Your task to perform on an android device: Go to battery settings Image 0: 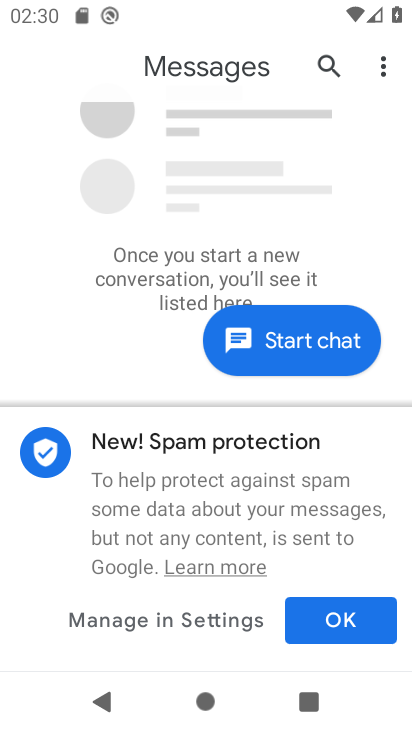
Step 0: press home button
Your task to perform on an android device: Go to battery settings Image 1: 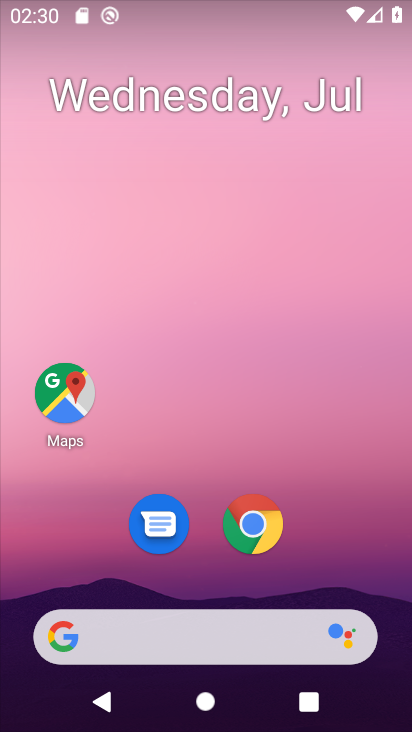
Step 1: drag from (298, 557) to (306, 42)
Your task to perform on an android device: Go to battery settings Image 2: 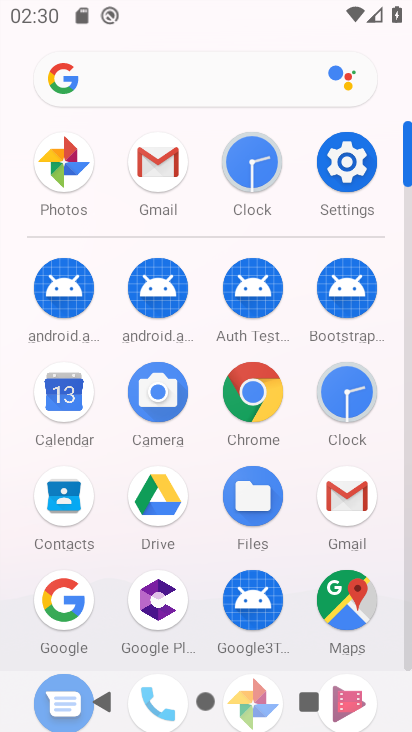
Step 2: click (360, 169)
Your task to perform on an android device: Go to battery settings Image 3: 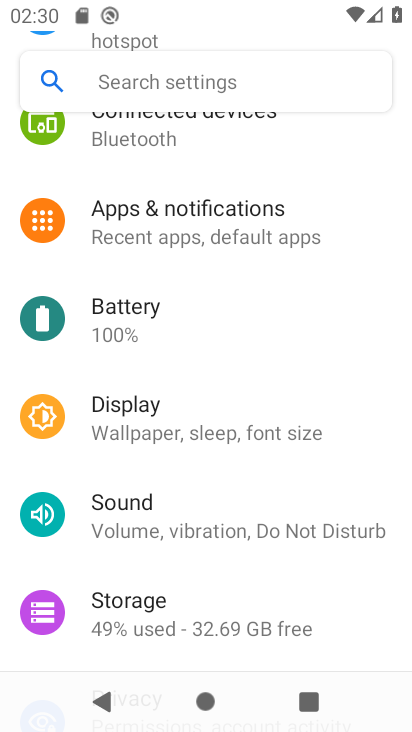
Step 3: click (136, 308)
Your task to perform on an android device: Go to battery settings Image 4: 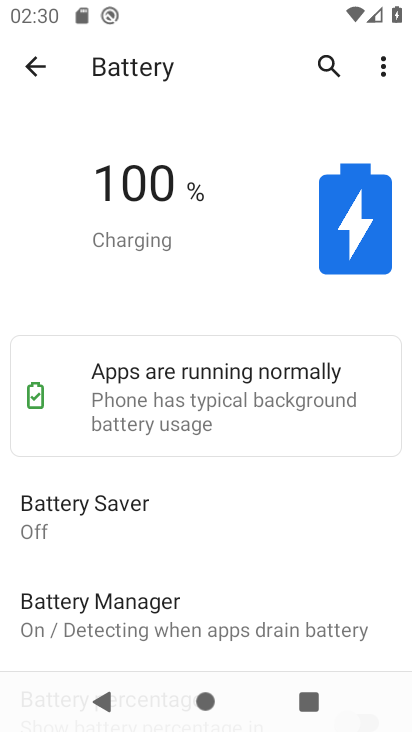
Step 4: task complete